Your task to perform on an android device: set the timer Image 0: 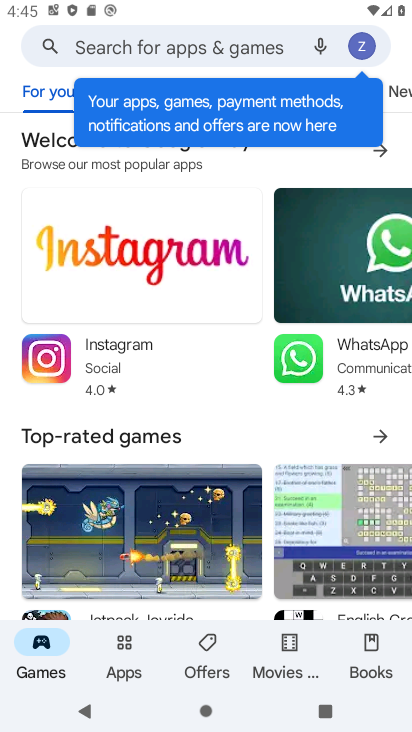
Step 0: press home button
Your task to perform on an android device: set the timer Image 1: 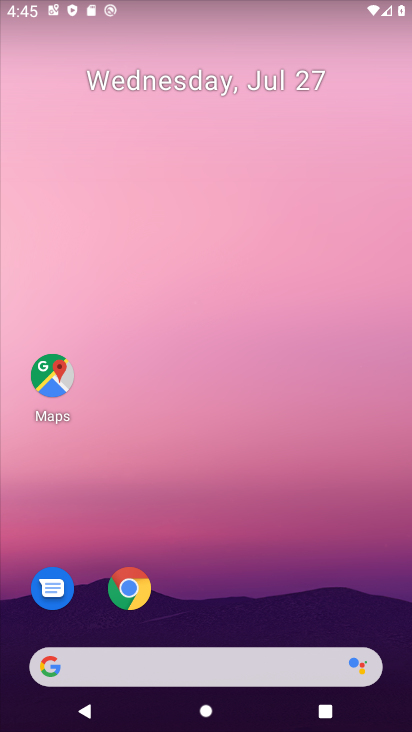
Step 1: drag from (245, 713) to (243, 126)
Your task to perform on an android device: set the timer Image 2: 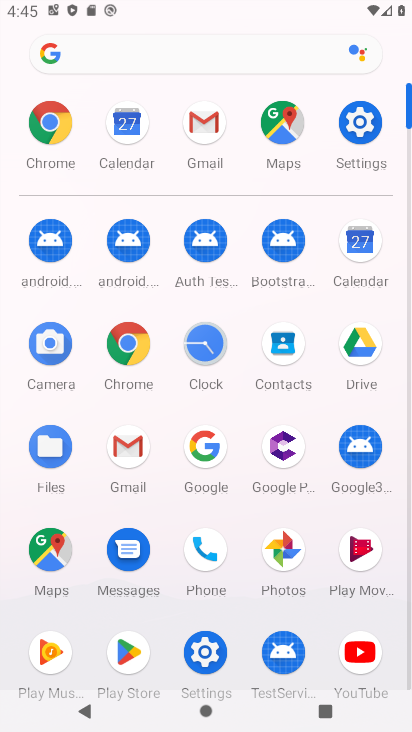
Step 2: click (214, 346)
Your task to perform on an android device: set the timer Image 3: 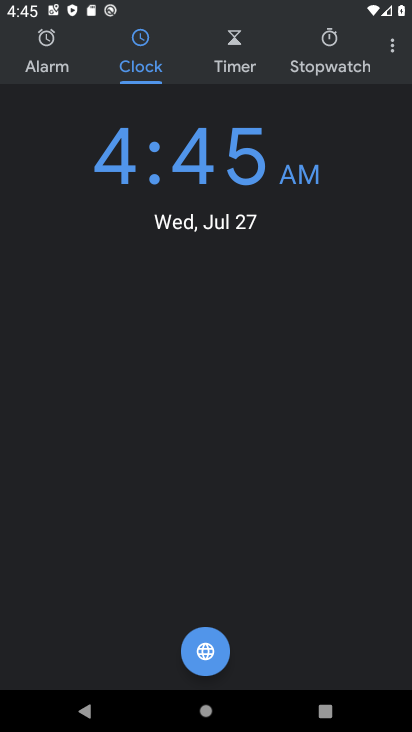
Step 3: click (241, 58)
Your task to perform on an android device: set the timer Image 4: 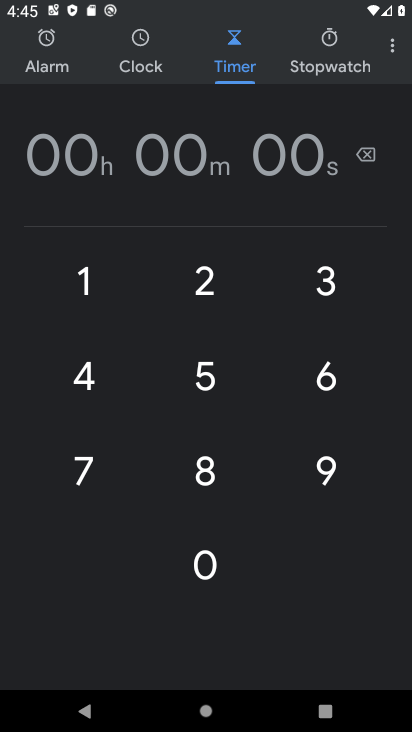
Step 4: click (203, 291)
Your task to perform on an android device: set the timer Image 5: 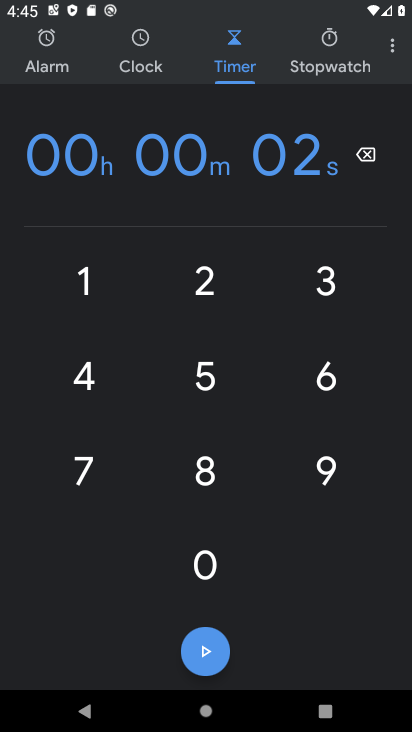
Step 5: click (209, 368)
Your task to perform on an android device: set the timer Image 6: 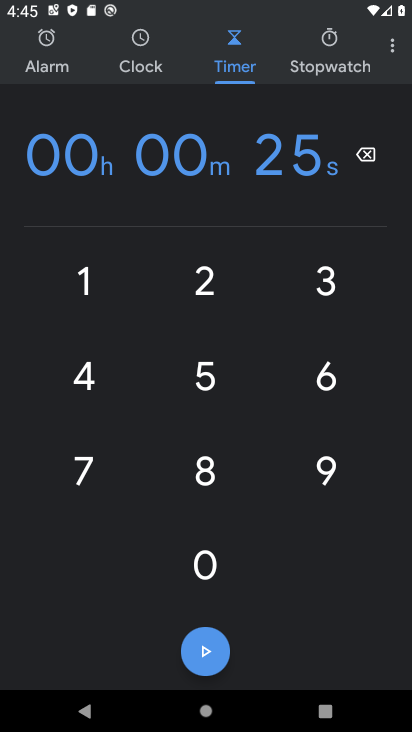
Step 6: click (208, 479)
Your task to perform on an android device: set the timer Image 7: 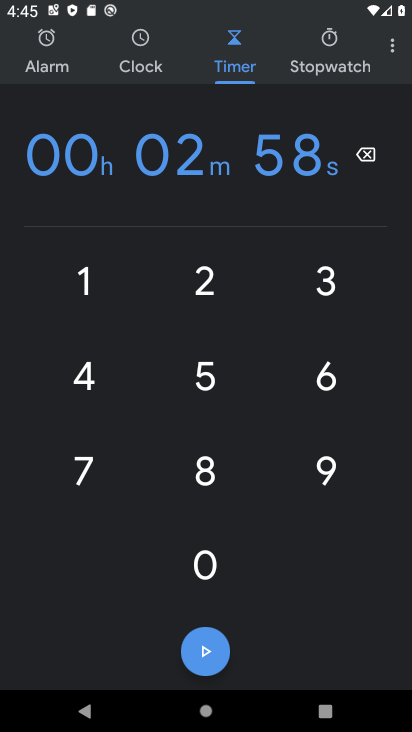
Step 7: click (207, 644)
Your task to perform on an android device: set the timer Image 8: 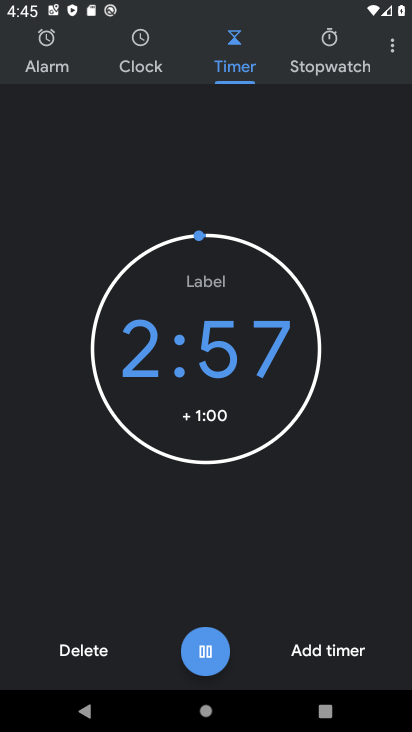
Step 8: task complete